Your task to perform on an android device: change the upload size in google photos Image 0: 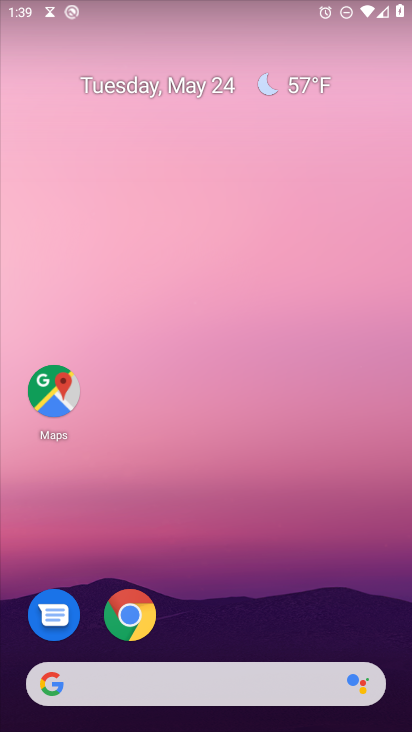
Step 0: drag from (170, 649) to (196, 274)
Your task to perform on an android device: change the upload size in google photos Image 1: 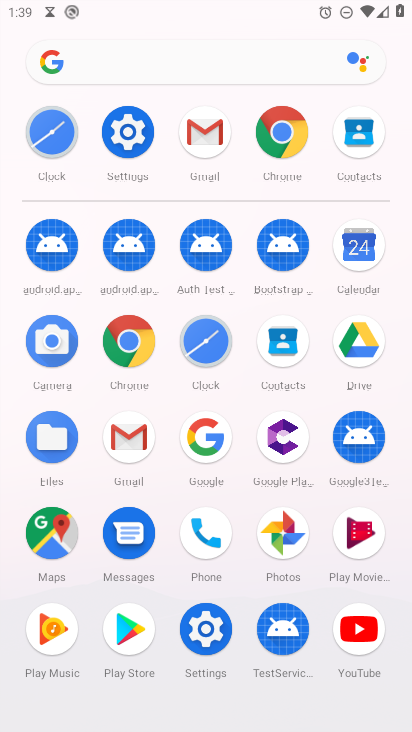
Step 1: click (286, 529)
Your task to perform on an android device: change the upload size in google photos Image 2: 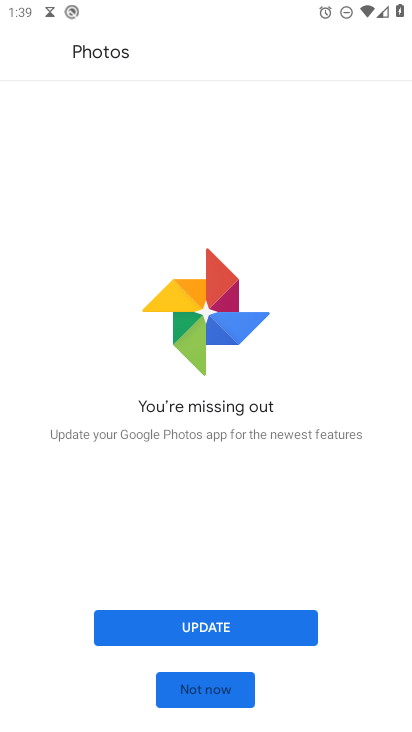
Step 2: drag from (180, 682) to (109, 682)
Your task to perform on an android device: change the upload size in google photos Image 3: 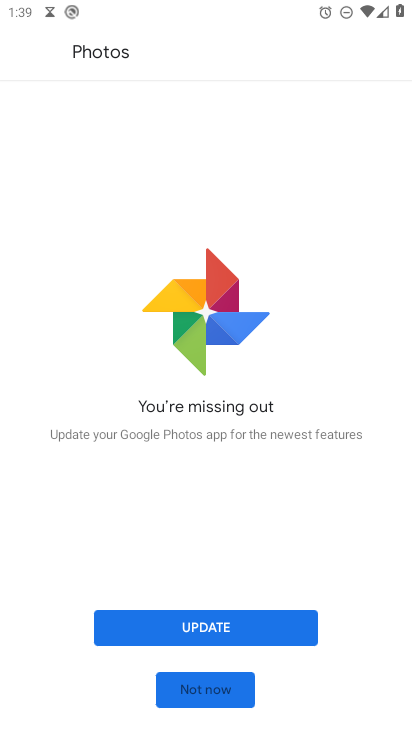
Step 3: click (183, 686)
Your task to perform on an android device: change the upload size in google photos Image 4: 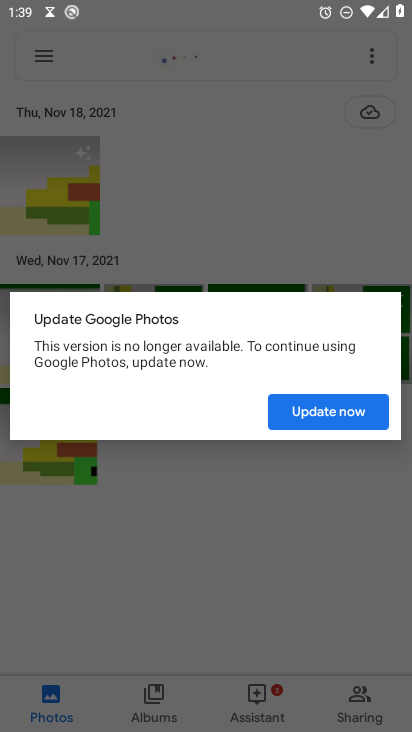
Step 4: click (344, 409)
Your task to perform on an android device: change the upload size in google photos Image 5: 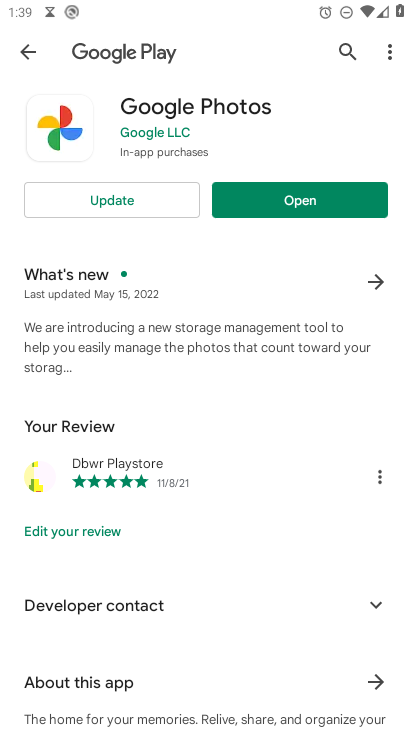
Step 5: click (141, 187)
Your task to perform on an android device: change the upload size in google photos Image 6: 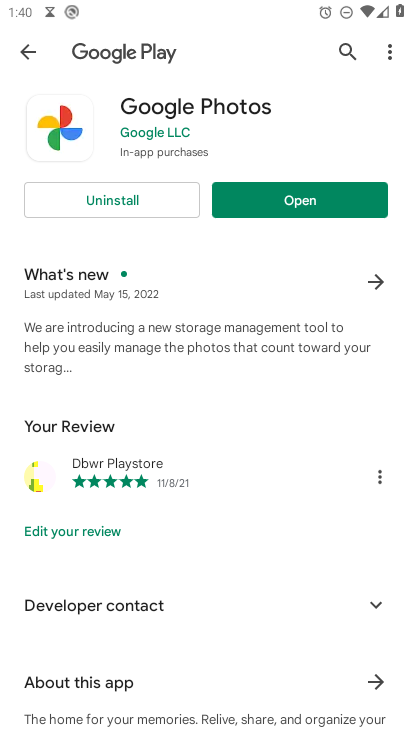
Step 6: click (250, 195)
Your task to perform on an android device: change the upload size in google photos Image 7: 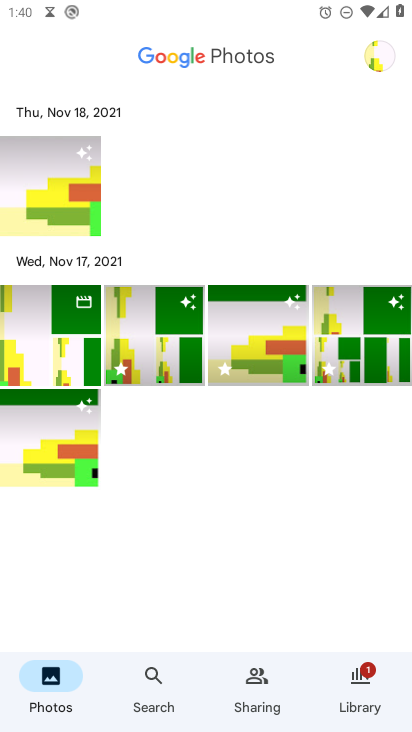
Step 7: click (389, 67)
Your task to perform on an android device: change the upload size in google photos Image 8: 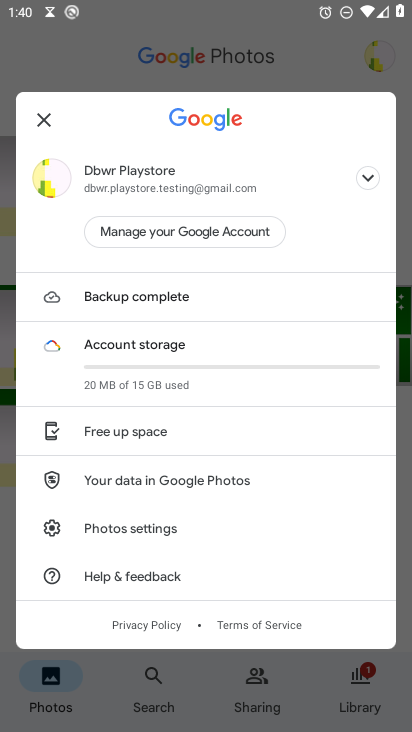
Step 8: click (106, 522)
Your task to perform on an android device: change the upload size in google photos Image 9: 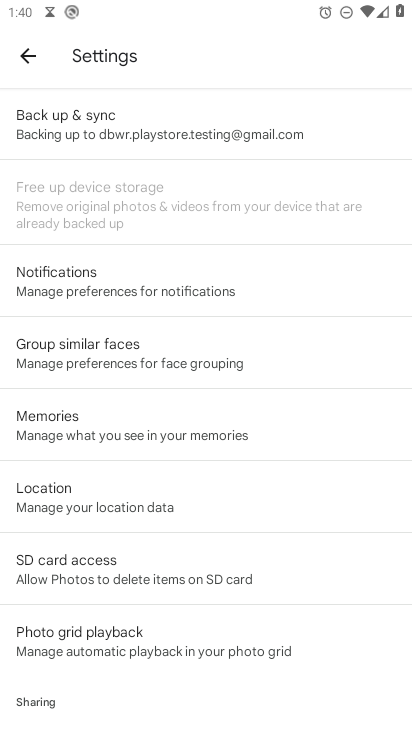
Step 9: click (67, 118)
Your task to perform on an android device: change the upload size in google photos Image 10: 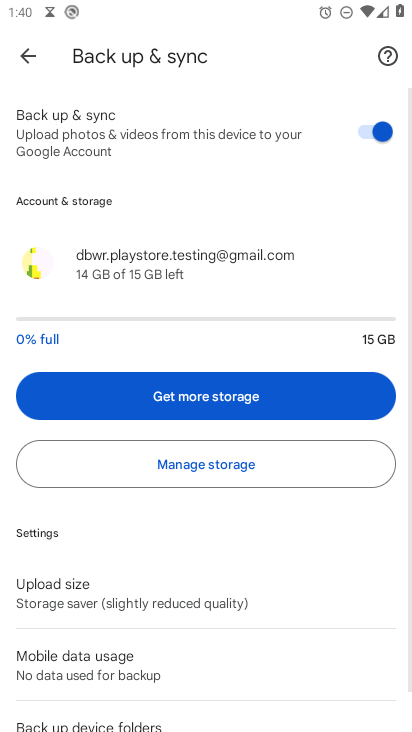
Step 10: click (67, 605)
Your task to perform on an android device: change the upload size in google photos Image 11: 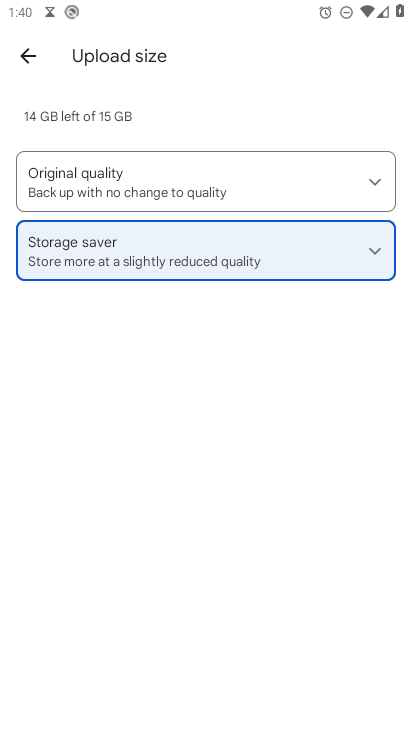
Step 11: click (74, 172)
Your task to perform on an android device: change the upload size in google photos Image 12: 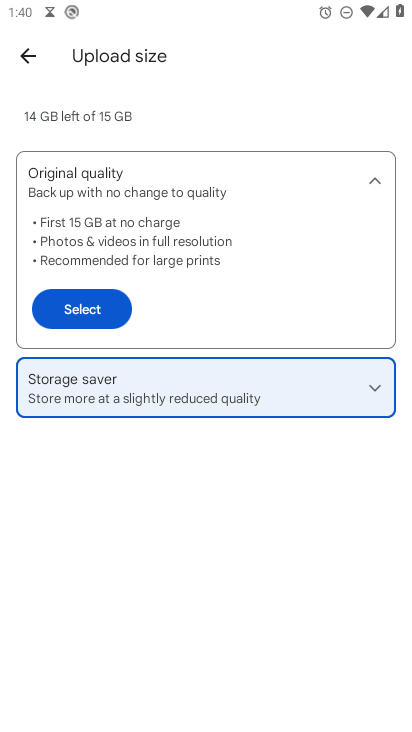
Step 12: click (89, 302)
Your task to perform on an android device: change the upload size in google photos Image 13: 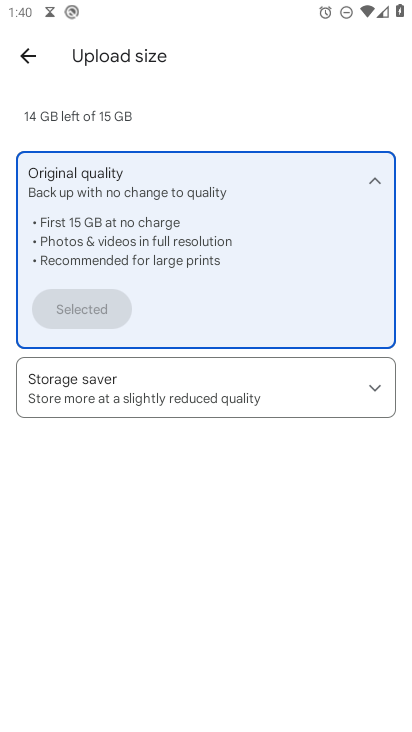
Step 13: task complete